Your task to perform on an android device: toggle data saver in the chrome app Image 0: 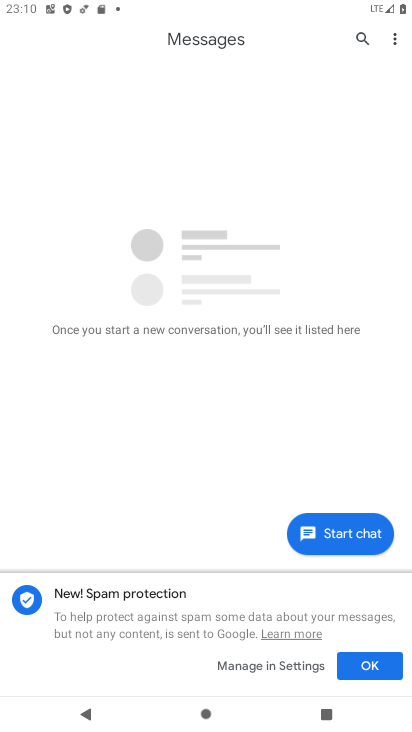
Step 0: press home button
Your task to perform on an android device: toggle data saver in the chrome app Image 1: 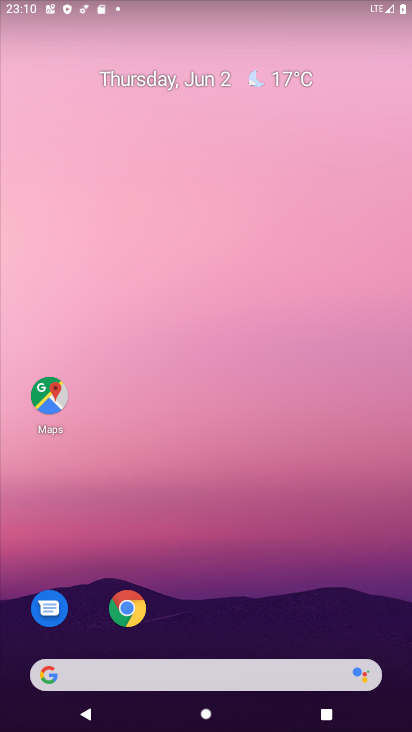
Step 1: click (134, 609)
Your task to perform on an android device: toggle data saver in the chrome app Image 2: 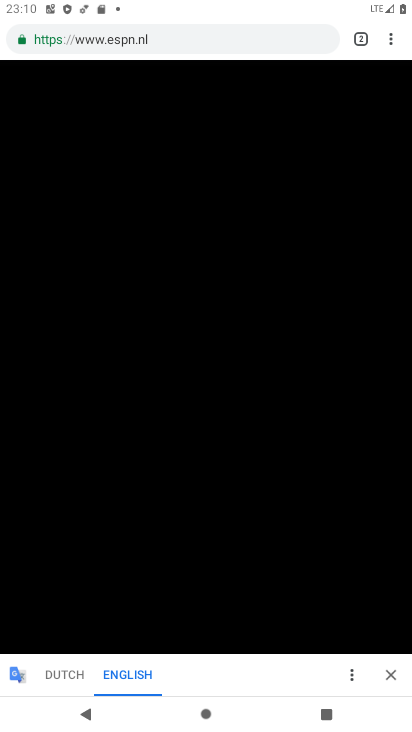
Step 2: click (393, 34)
Your task to perform on an android device: toggle data saver in the chrome app Image 3: 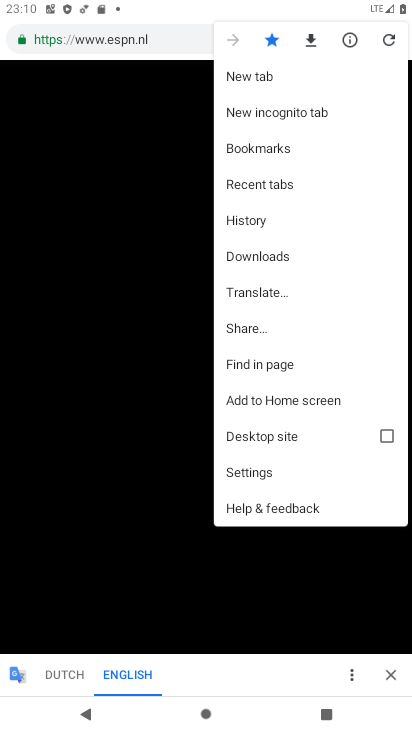
Step 3: click (266, 463)
Your task to perform on an android device: toggle data saver in the chrome app Image 4: 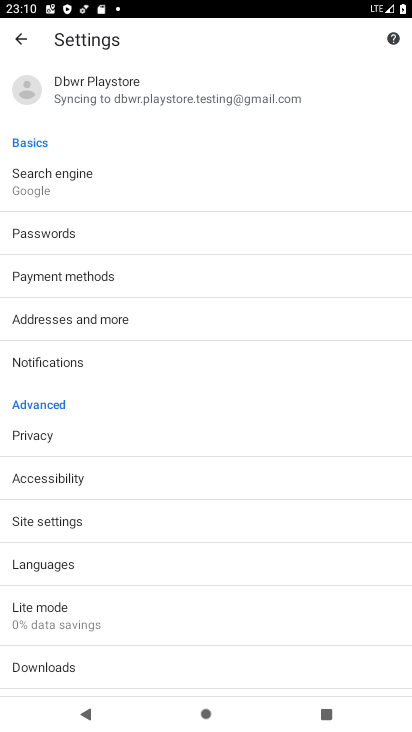
Step 4: click (103, 612)
Your task to perform on an android device: toggle data saver in the chrome app Image 5: 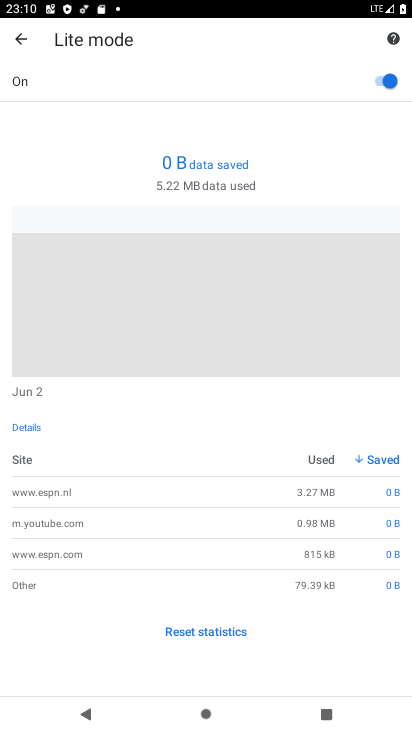
Step 5: click (388, 80)
Your task to perform on an android device: toggle data saver in the chrome app Image 6: 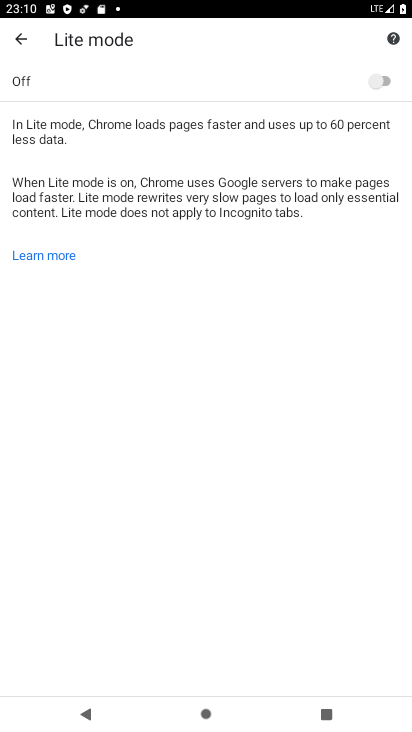
Step 6: task complete